Your task to perform on an android device: read, delete, or share a saved page in the chrome app Image 0: 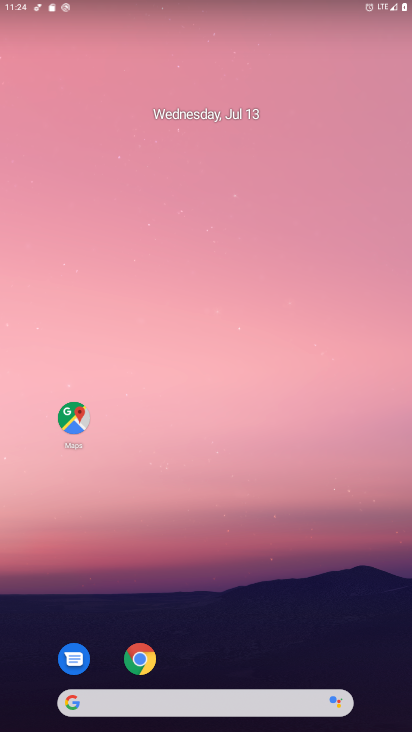
Step 0: press home button
Your task to perform on an android device: read, delete, or share a saved page in the chrome app Image 1: 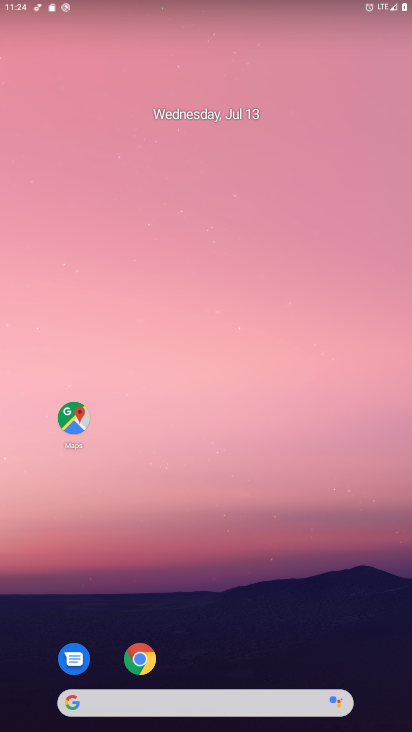
Step 1: click (139, 653)
Your task to perform on an android device: read, delete, or share a saved page in the chrome app Image 2: 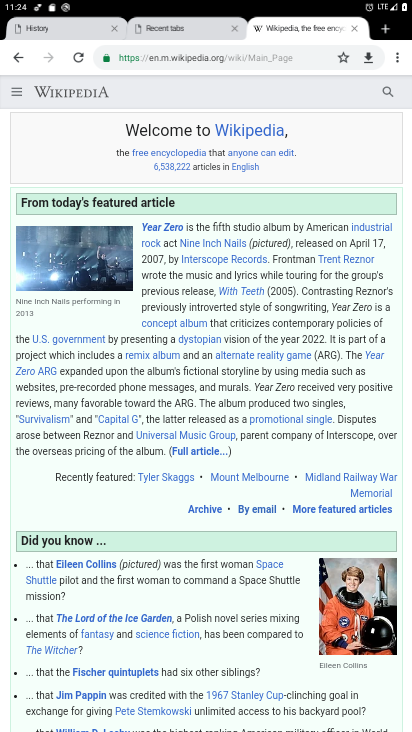
Step 2: click (394, 57)
Your task to perform on an android device: read, delete, or share a saved page in the chrome app Image 3: 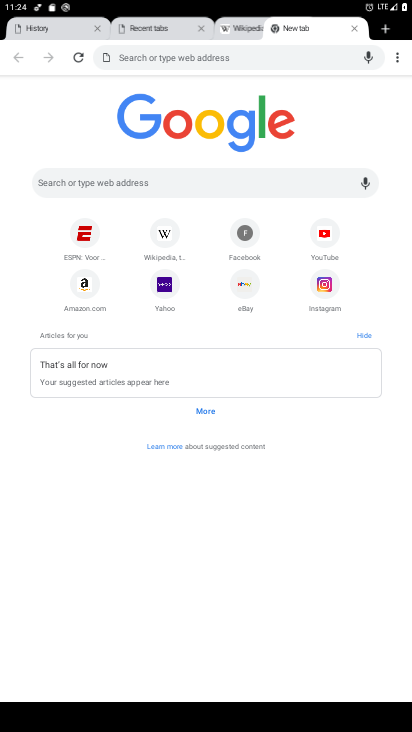
Step 3: click (398, 57)
Your task to perform on an android device: read, delete, or share a saved page in the chrome app Image 4: 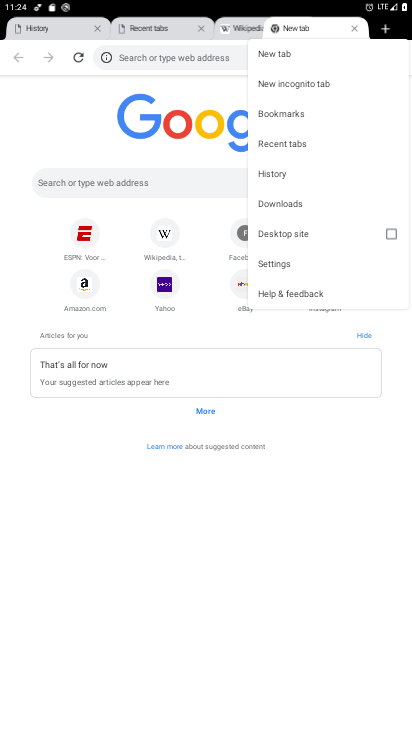
Step 4: click (306, 201)
Your task to perform on an android device: read, delete, or share a saved page in the chrome app Image 5: 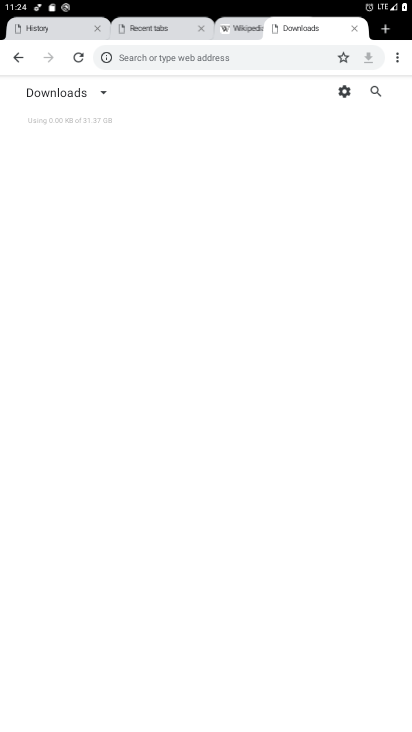
Step 5: click (201, 28)
Your task to perform on an android device: read, delete, or share a saved page in the chrome app Image 6: 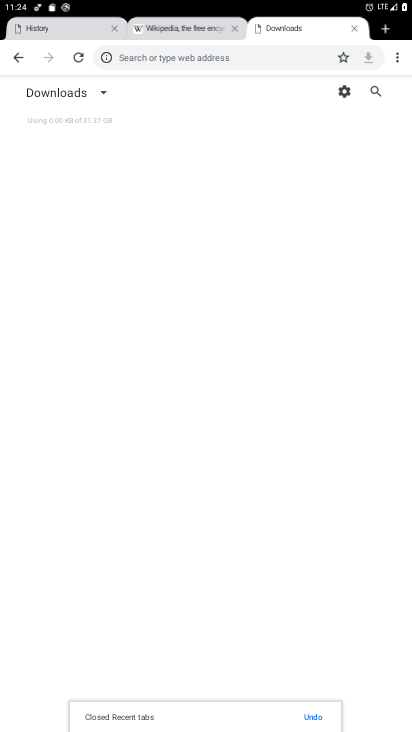
Step 6: click (114, 27)
Your task to perform on an android device: read, delete, or share a saved page in the chrome app Image 7: 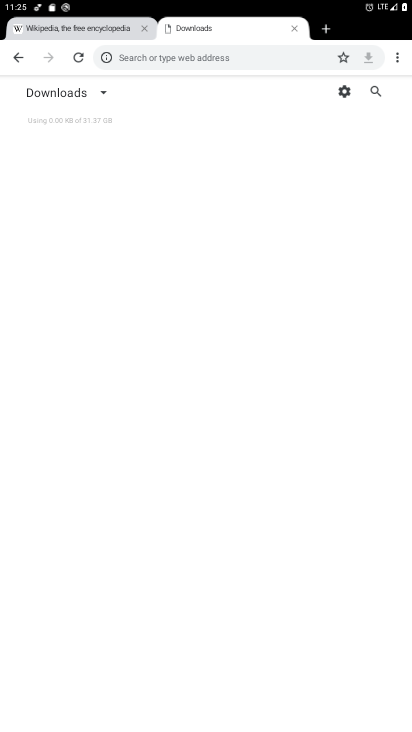
Step 7: task complete